Your task to perform on an android device: make emails show in primary in the gmail app Image 0: 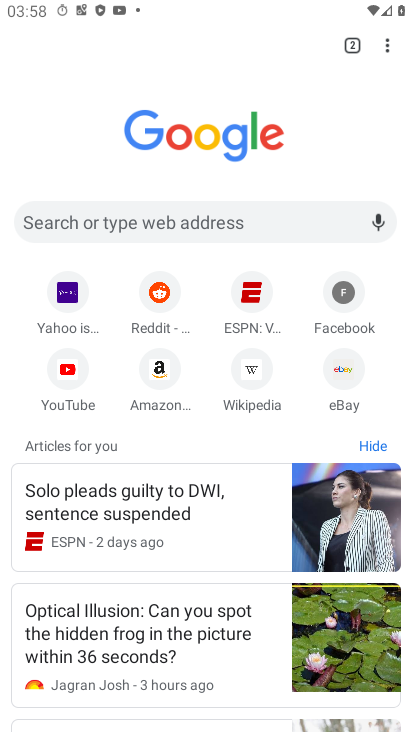
Step 0: press back button
Your task to perform on an android device: make emails show in primary in the gmail app Image 1: 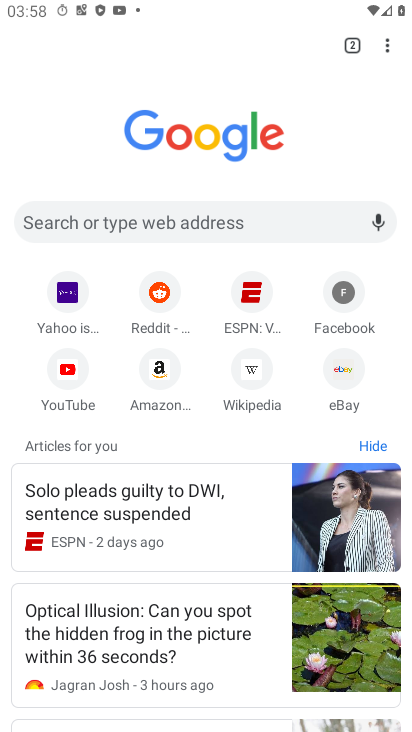
Step 1: press back button
Your task to perform on an android device: make emails show in primary in the gmail app Image 2: 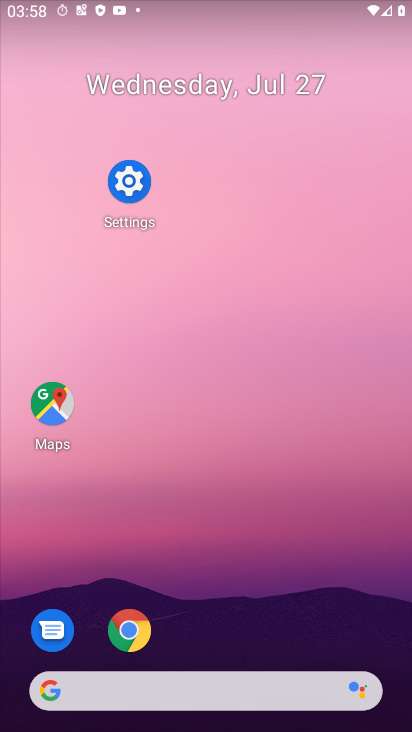
Step 2: drag from (232, 545) to (212, 123)
Your task to perform on an android device: make emails show in primary in the gmail app Image 3: 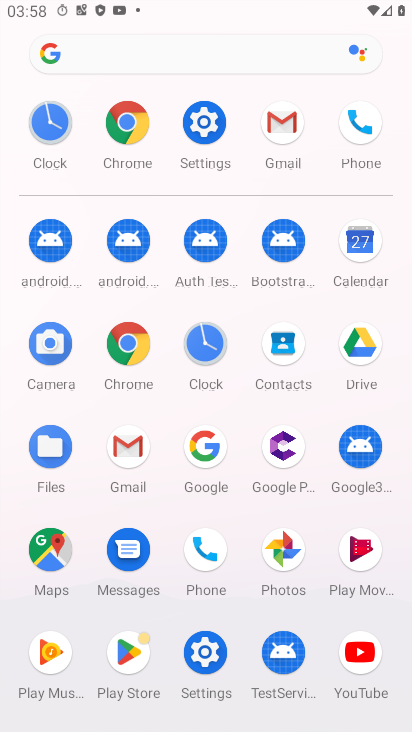
Step 3: click (132, 455)
Your task to perform on an android device: make emails show in primary in the gmail app Image 4: 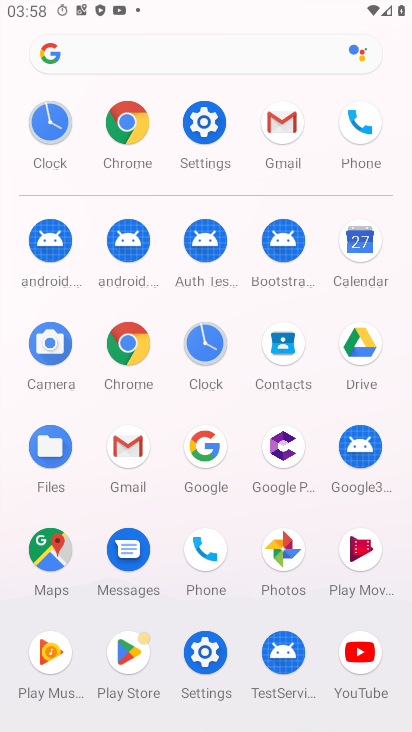
Step 4: click (128, 449)
Your task to perform on an android device: make emails show in primary in the gmail app Image 5: 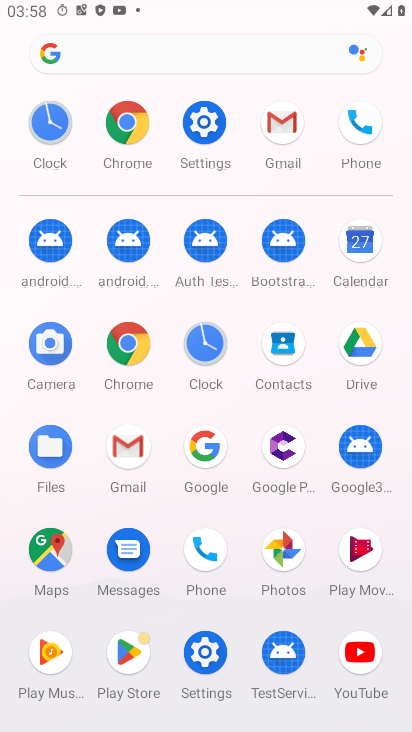
Step 5: click (130, 449)
Your task to perform on an android device: make emails show in primary in the gmail app Image 6: 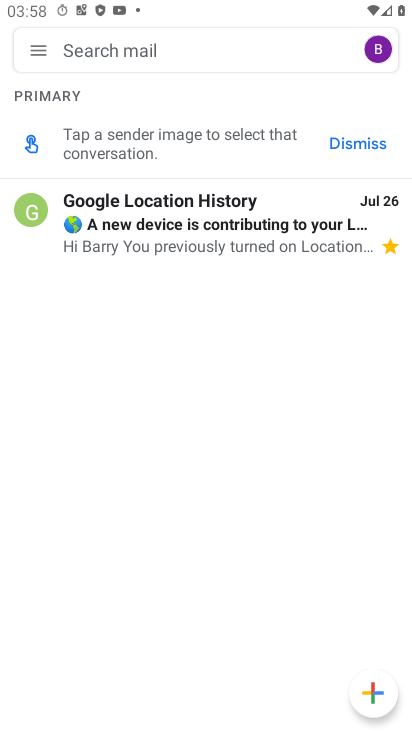
Step 6: click (37, 42)
Your task to perform on an android device: make emails show in primary in the gmail app Image 7: 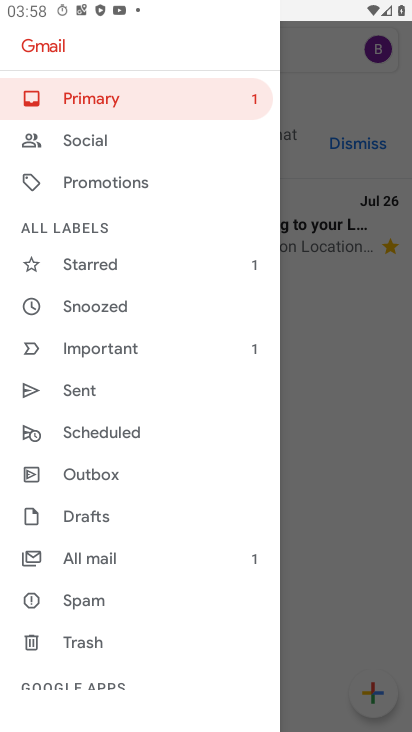
Step 7: drag from (93, 634) to (52, 278)
Your task to perform on an android device: make emails show in primary in the gmail app Image 8: 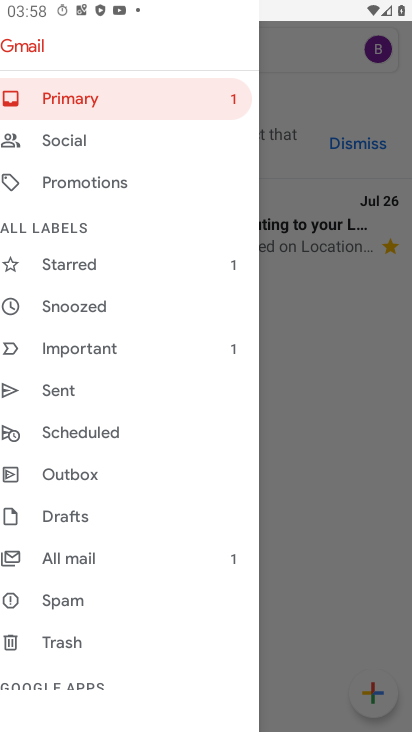
Step 8: drag from (161, 487) to (120, 264)
Your task to perform on an android device: make emails show in primary in the gmail app Image 9: 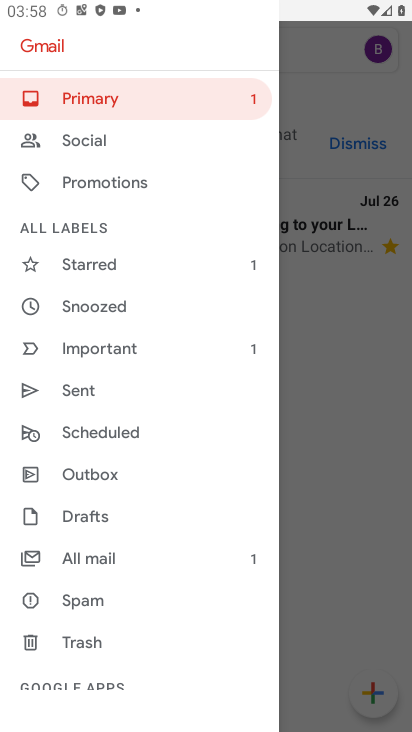
Step 9: drag from (126, 553) to (120, 315)
Your task to perform on an android device: make emails show in primary in the gmail app Image 10: 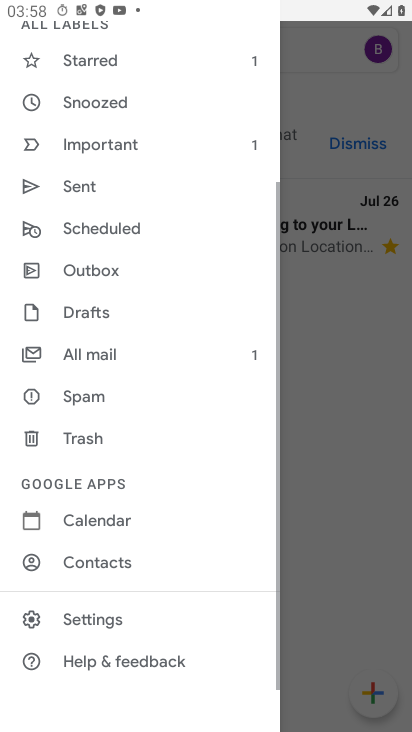
Step 10: drag from (101, 536) to (101, 316)
Your task to perform on an android device: make emails show in primary in the gmail app Image 11: 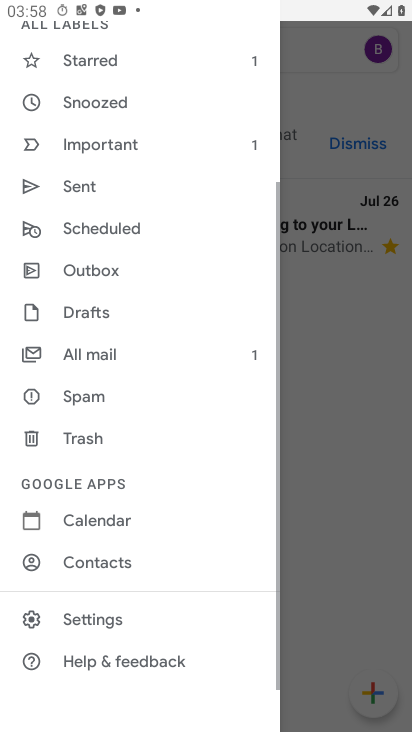
Step 11: click (101, 609)
Your task to perform on an android device: make emails show in primary in the gmail app Image 12: 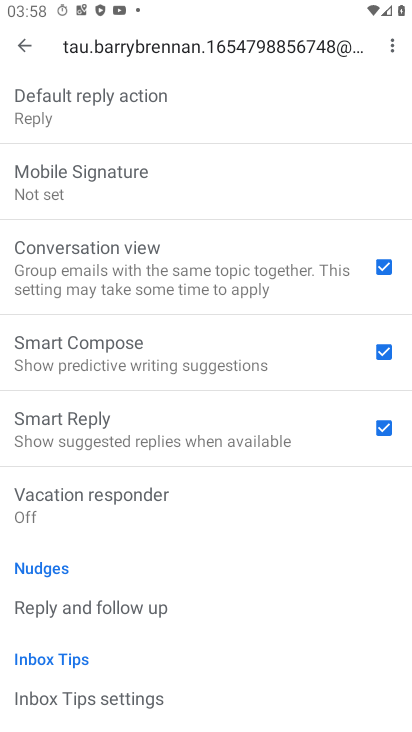
Step 12: task complete